Your task to perform on an android device: set an alarm Image 0: 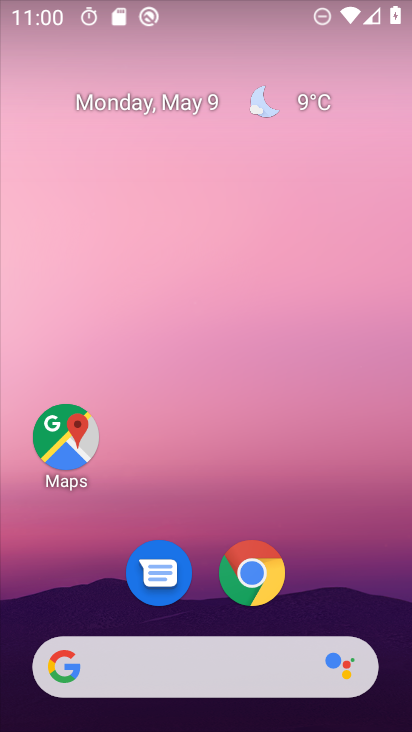
Step 0: drag from (348, 517) to (262, 64)
Your task to perform on an android device: set an alarm Image 1: 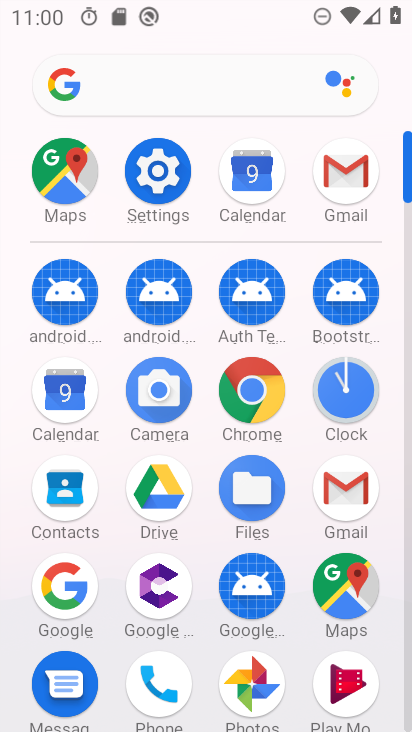
Step 1: click (350, 394)
Your task to perform on an android device: set an alarm Image 2: 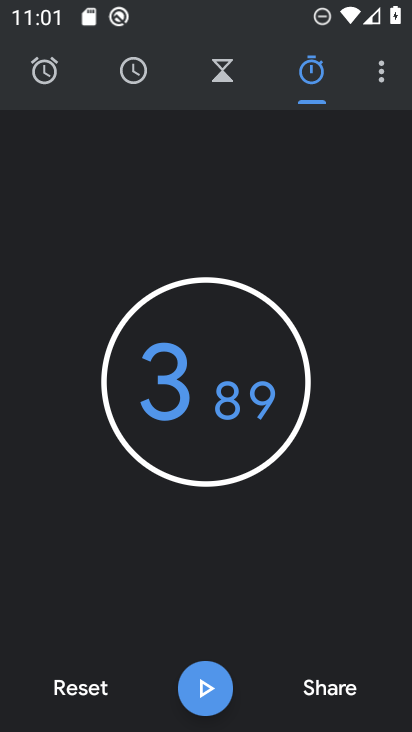
Step 2: click (32, 77)
Your task to perform on an android device: set an alarm Image 3: 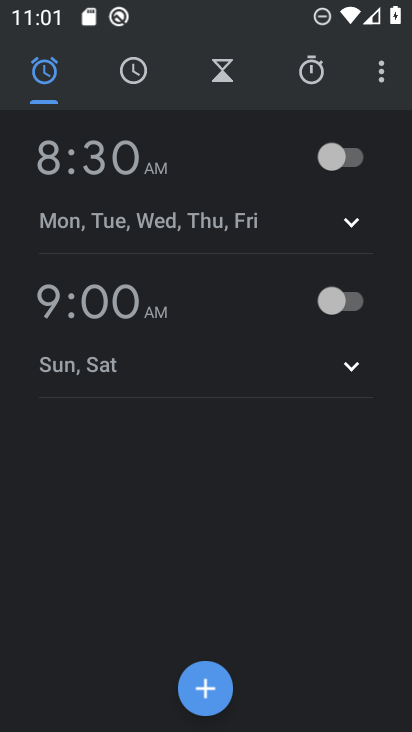
Step 3: click (206, 689)
Your task to perform on an android device: set an alarm Image 4: 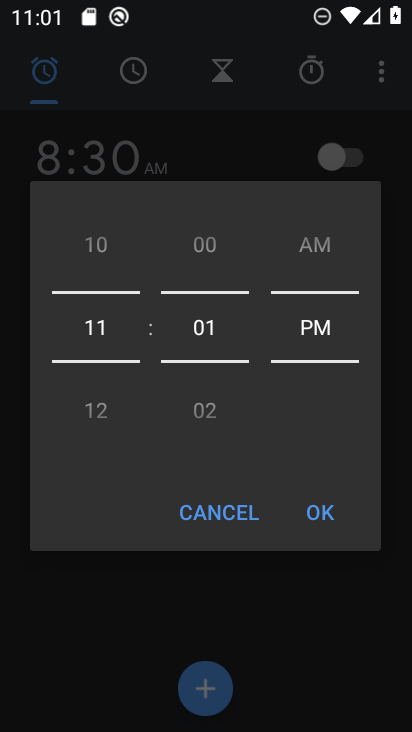
Step 4: click (319, 518)
Your task to perform on an android device: set an alarm Image 5: 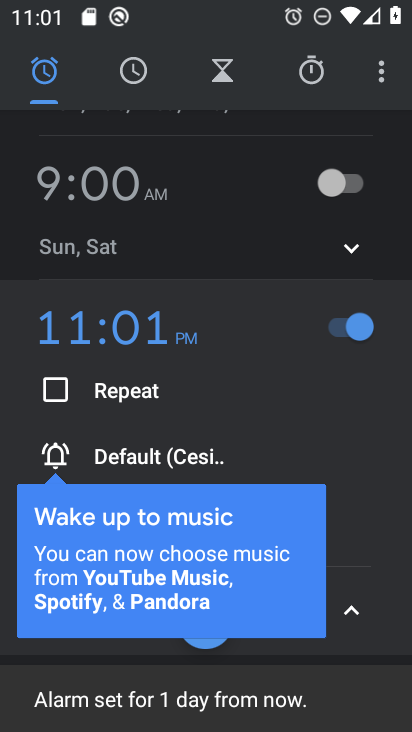
Step 5: task complete